Your task to perform on an android device: Open ESPN.com Image 0: 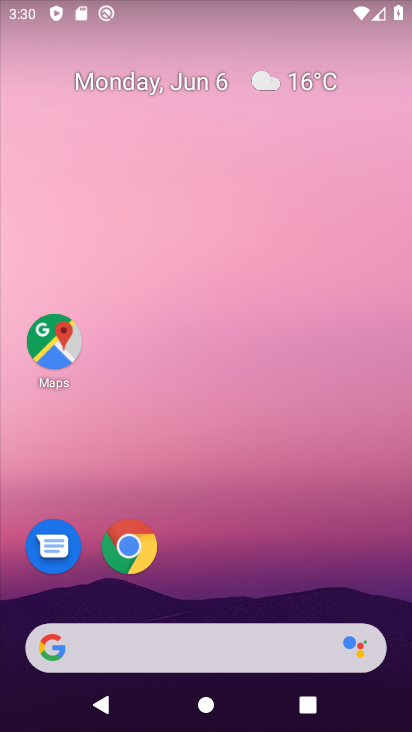
Step 0: click (141, 550)
Your task to perform on an android device: Open ESPN.com Image 1: 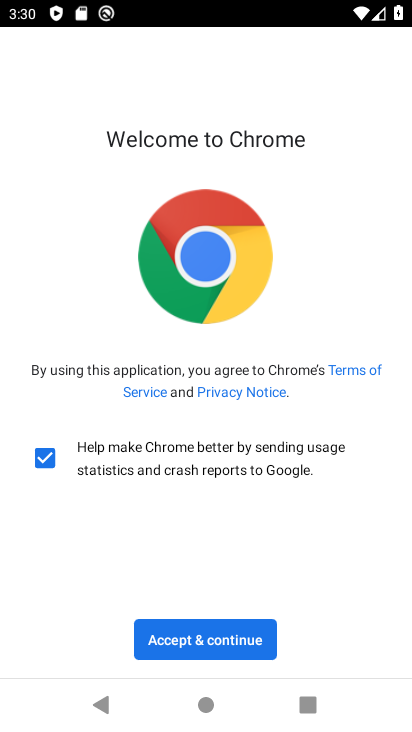
Step 1: click (231, 635)
Your task to perform on an android device: Open ESPN.com Image 2: 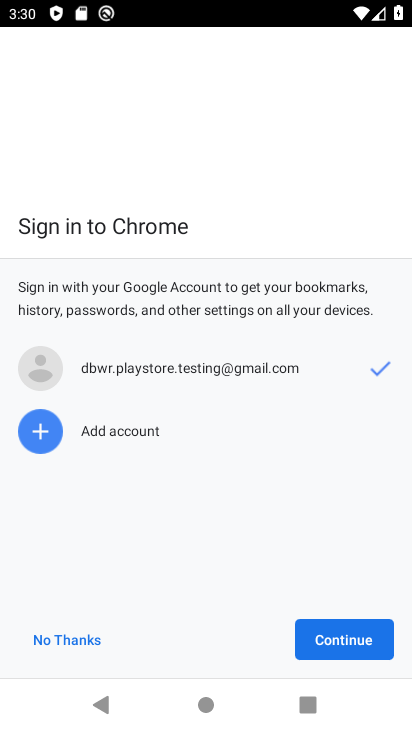
Step 2: click (333, 632)
Your task to perform on an android device: Open ESPN.com Image 3: 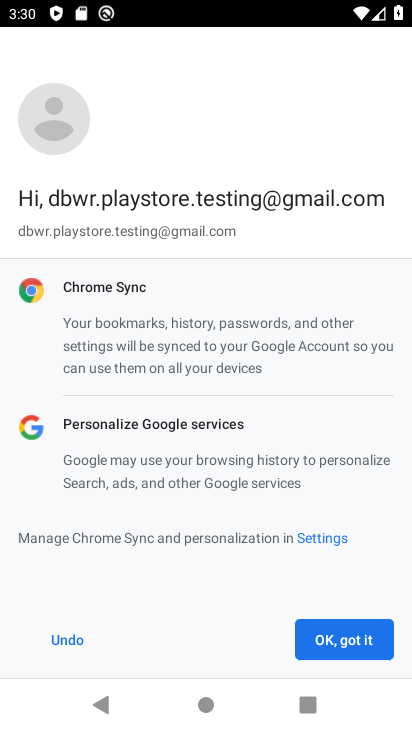
Step 3: click (362, 652)
Your task to perform on an android device: Open ESPN.com Image 4: 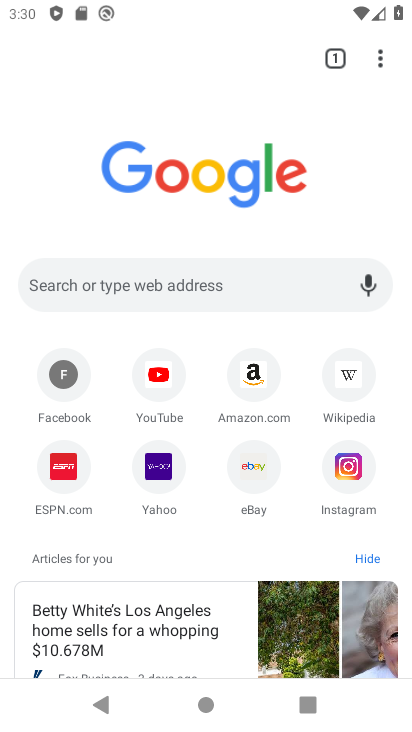
Step 4: click (64, 475)
Your task to perform on an android device: Open ESPN.com Image 5: 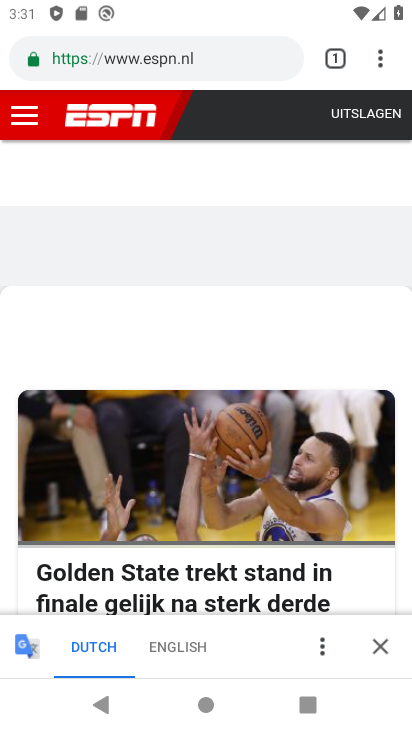
Step 5: task complete